Your task to perform on an android device: open a new tab in the chrome app Image 0: 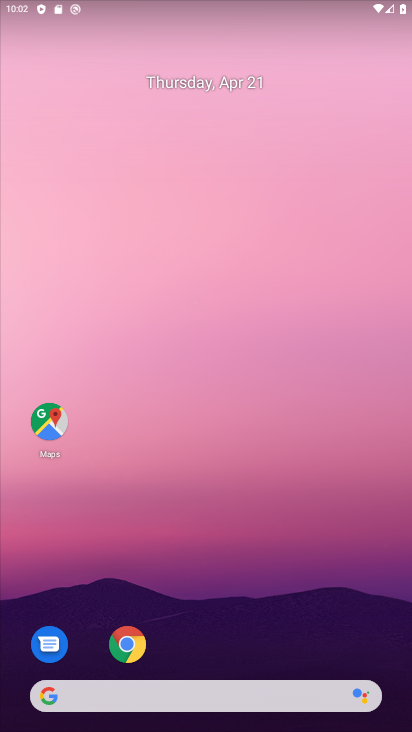
Step 0: drag from (224, 314) to (180, 166)
Your task to perform on an android device: open a new tab in the chrome app Image 1: 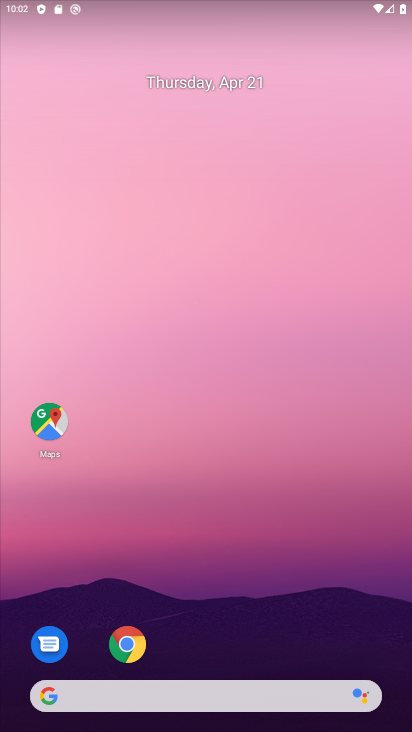
Step 1: click (134, 661)
Your task to perform on an android device: open a new tab in the chrome app Image 2: 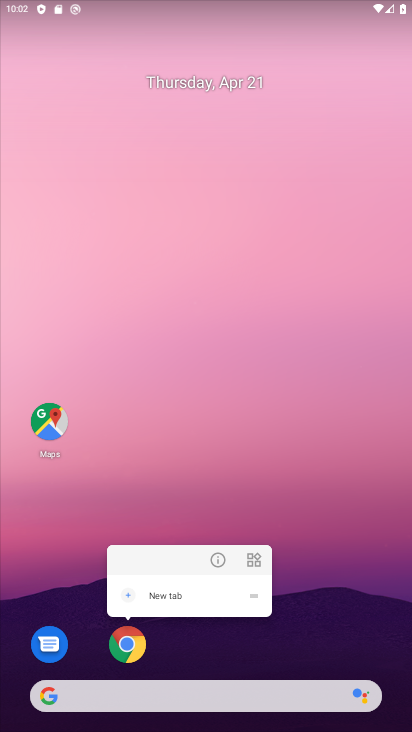
Step 2: click (131, 657)
Your task to perform on an android device: open a new tab in the chrome app Image 3: 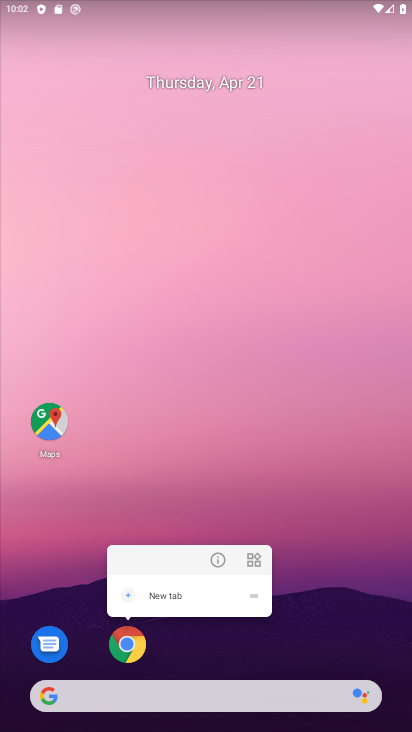
Step 3: click (136, 644)
Your task to perform on an android device: open a new tab in the chrome app Image 4: 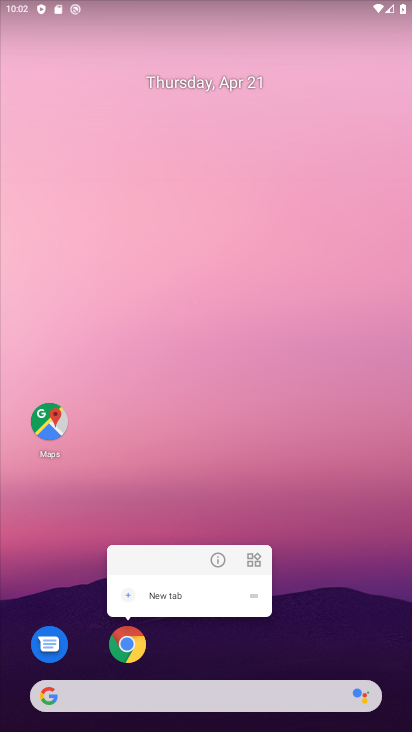
Step 4: click (116, 643)
Your task to perform on an android device: open a new tab in the chrome app Image 5: 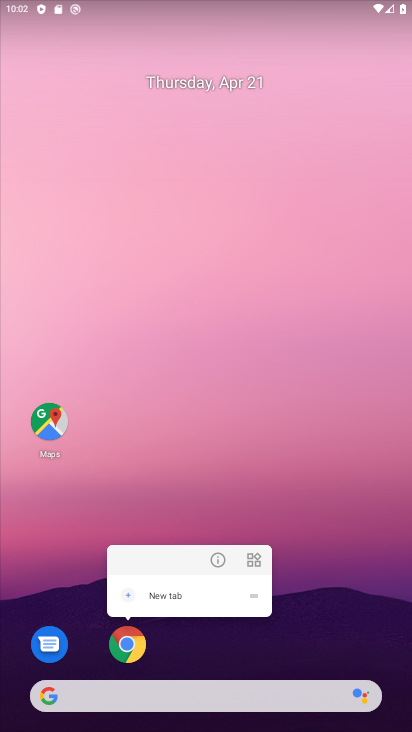
Step 5: click (122, 645)
Your task to perform on an android device: open a new tab in the chrome app Image 6: 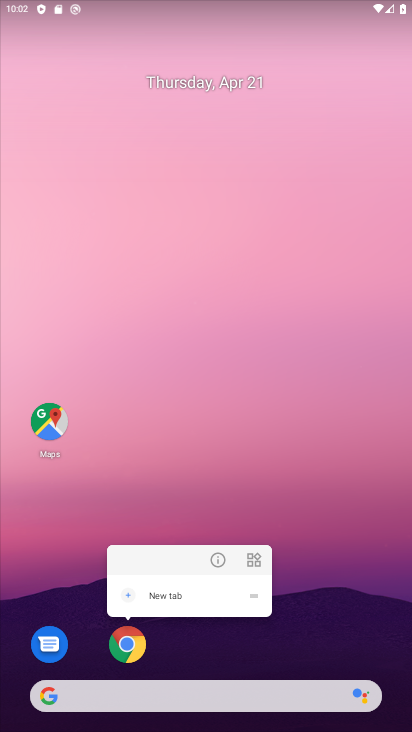
Step 6: click (127, 651)
Your task to perform on an android device: open a new tab in the chrome app Image 7: 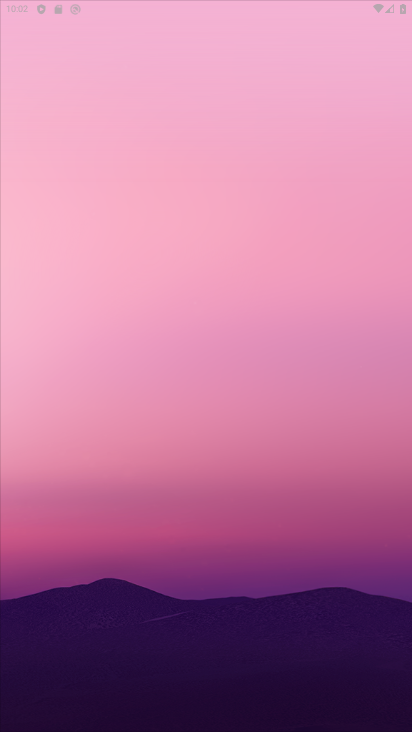
Step 7: click (127, 651)
Your task to perform on an android device: open a new tab in the chrome app Image 8: 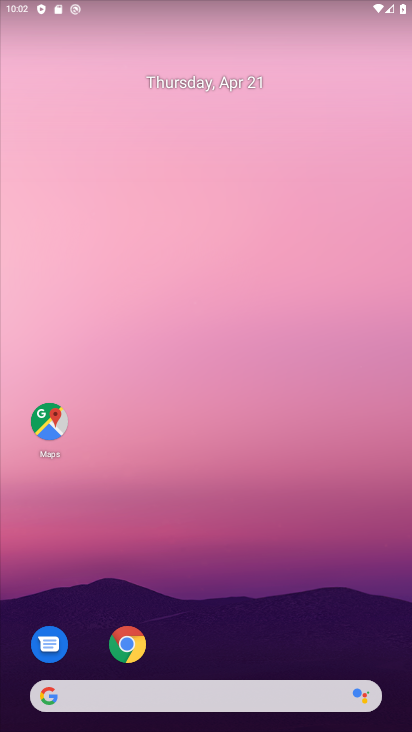
Step 8: click (142, 658)
Your task to perform on an android device: open a new tab in the chrome app Image 9: 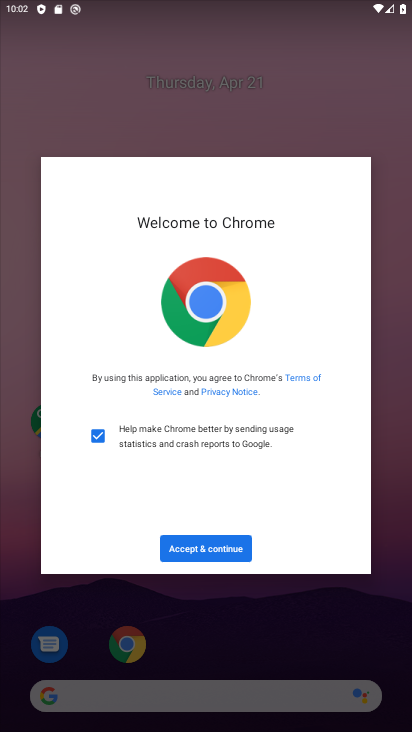
Step 9: click (233, 548)
Your task to perform on an android device: open a new tab in the chrome app Image 10: 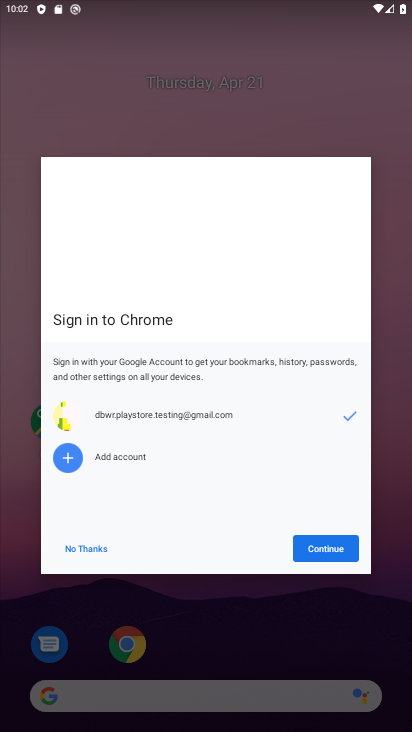
Step 10: click (321, 549)
Your task to perform on an android device: open a new tab in the chrome app Image 11: 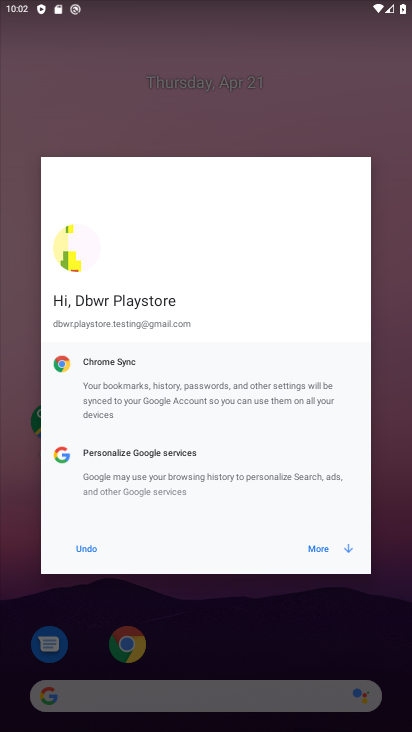
Step 11: click (320, 550)
Your task to perform on an android device: open a new tab in the chrome app Image 12: 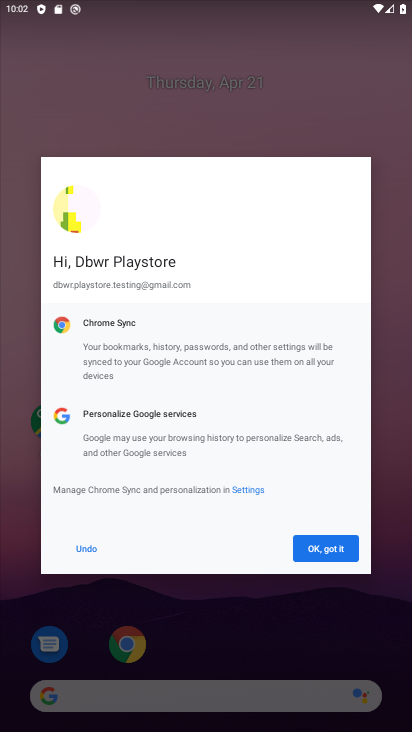
Step 12: click (320, 550)
Your task to perform on an android device: open a new tab in the chrome app Image 13: 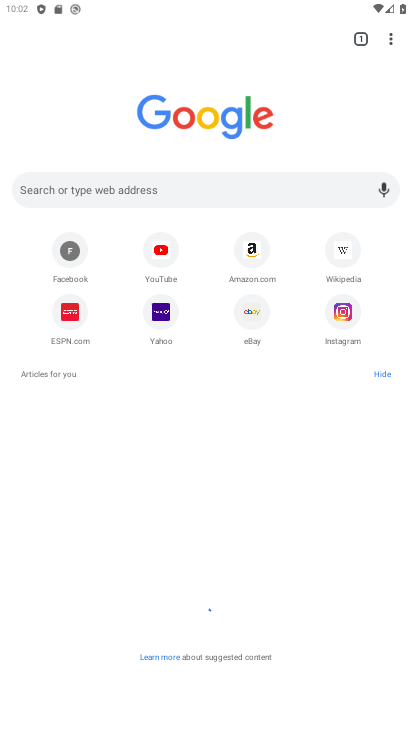
Step 13: click (360, 41)
Your task to perform on an android device: open a new tab in the chrome app Image 14: 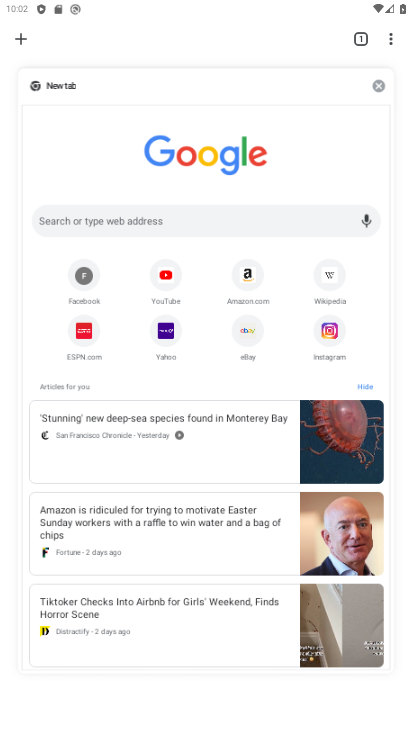
Step 14: click (23, 44)
Your task to perform on an android device: open a new tab in the chrome app Image 15: 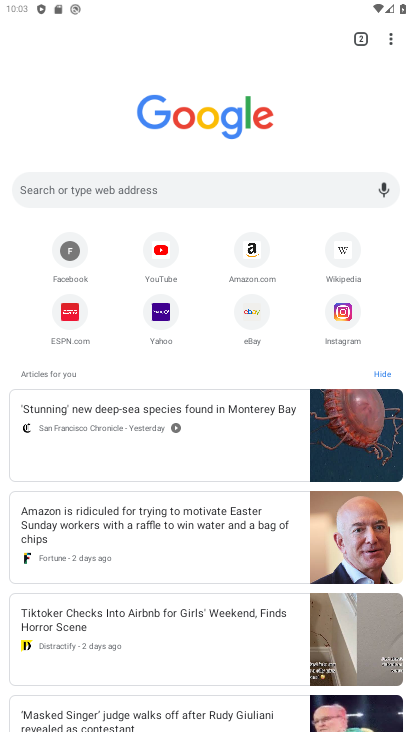
Step 15: task complete